Your task to perform on an android device: Open internet settings Image 0: 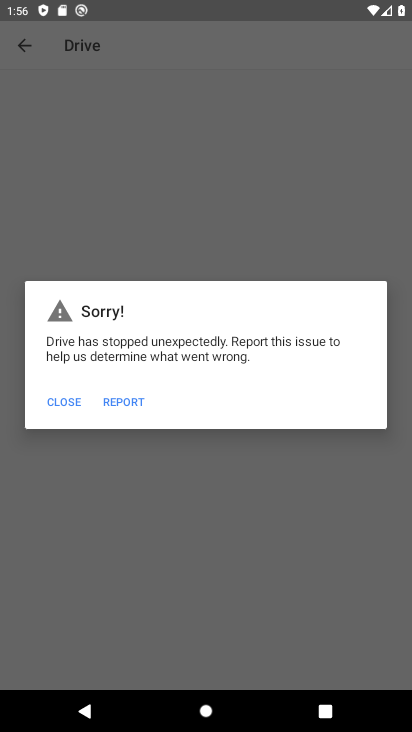
Step 0: press home button
Your task to perform on an android device: Open internet settings Image 1: 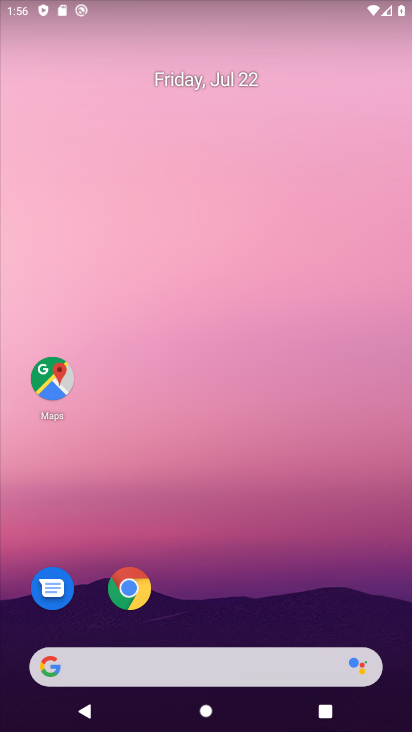
Step 1: drag from (296, 617) to (198, 73)
Your task to perform on an android device: Open internet settings Image 2: 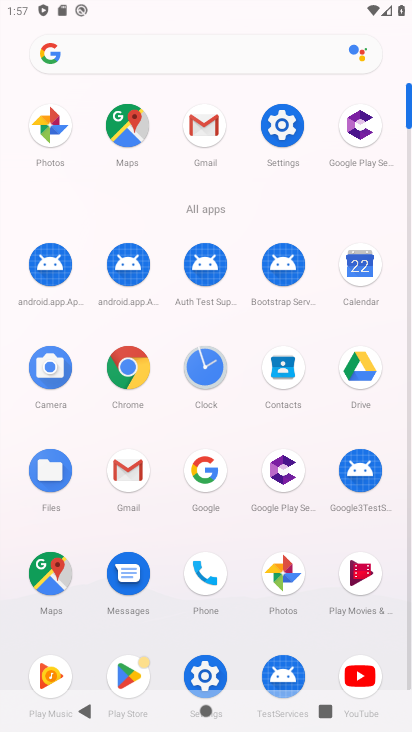
Step 2: click (280, 125)
Your task to perform on an android device: Open internet settings Image 3: 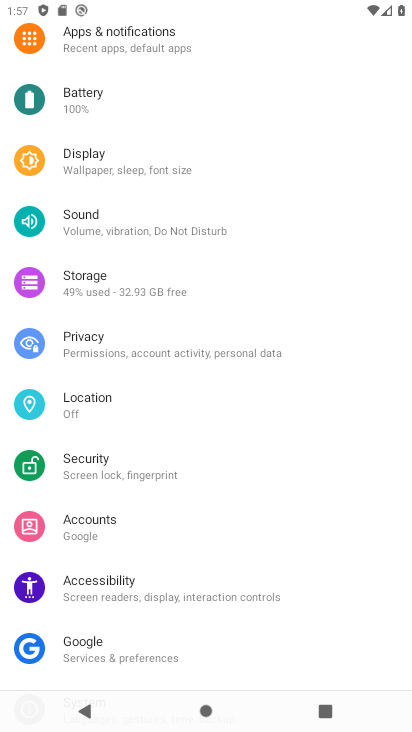
Step 3: drag from (280, 125) to (282, 206)
Your task to perform on an android device: Open internet settings Image 4: 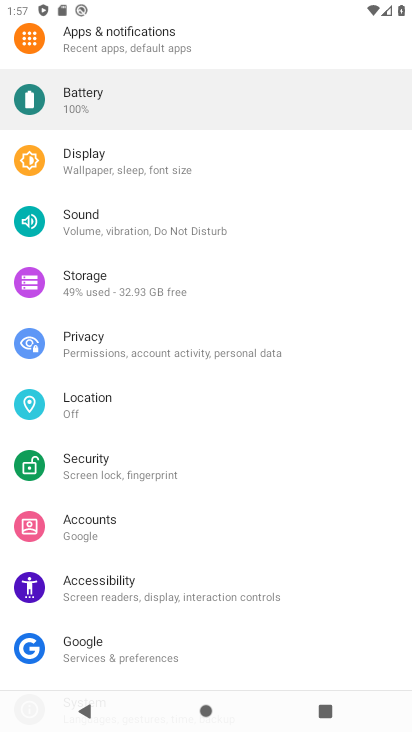
Step 4: drag from (282, 206) to (287, 336)
Your task to perform on an android device: Open internet settings Image 5: 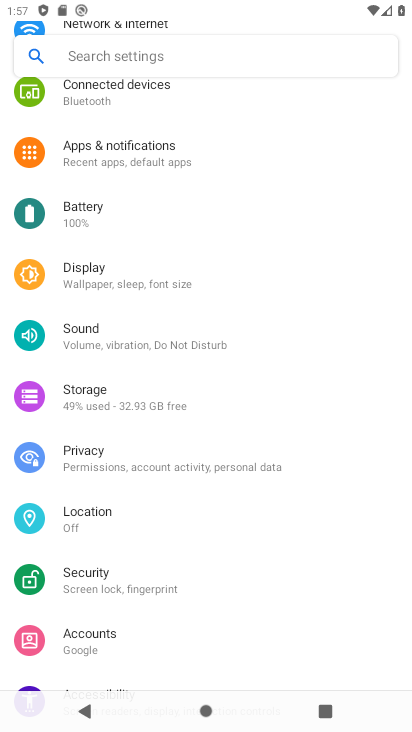
Step 5: drag from (166, 117) to (204, 477)
Your task to perform on an android device: Open internet settings Image 6: 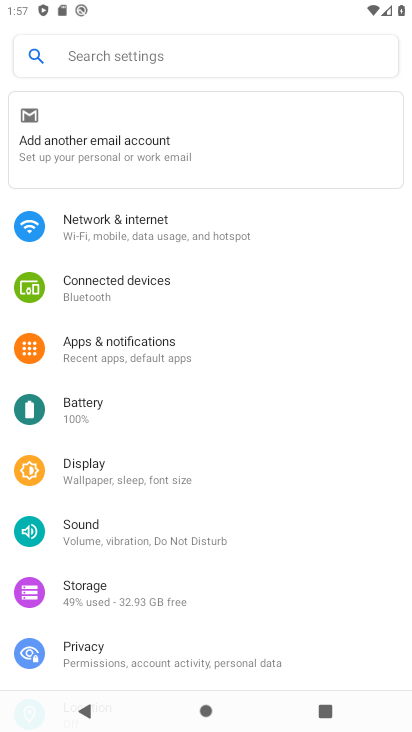
Step 6: click (148, 217)
Your task to perform on an android device: Open internet settings Image 7: 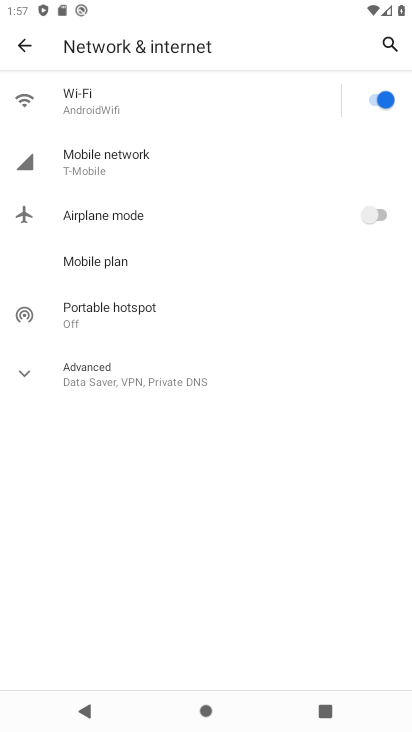
Step 7: task complete